Your task to perform on an android device: turn off wifi Image 0: 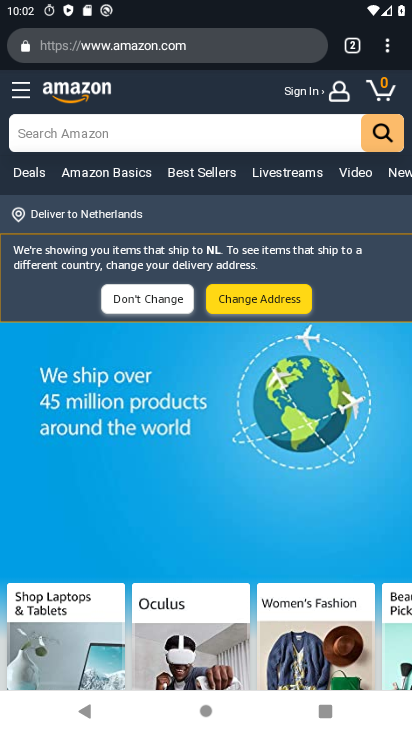
Step 0: press home button
Your task to perform on an android device: turn off wifi Image 1: 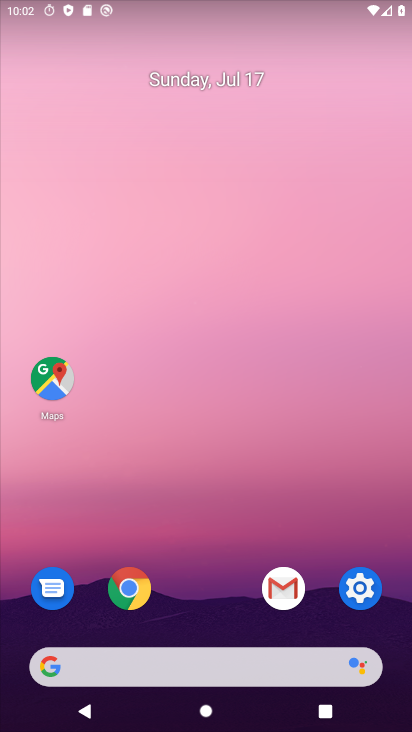
Step 1: click (363, 596)
Your task to perform on an android device: turn off wifi Image 2: 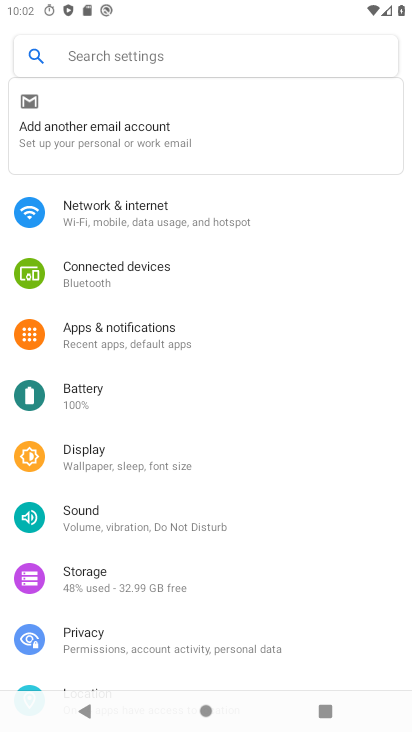
Step 2: click (103, 212)
Your task to perform on an android device: turn off wifi Image 3: 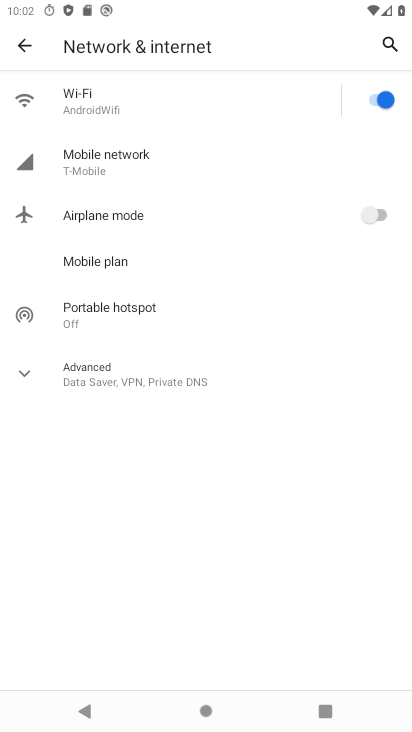
Step 3: click (112, 102)
Your task to perform on an android device: turn off wifi Image 4: 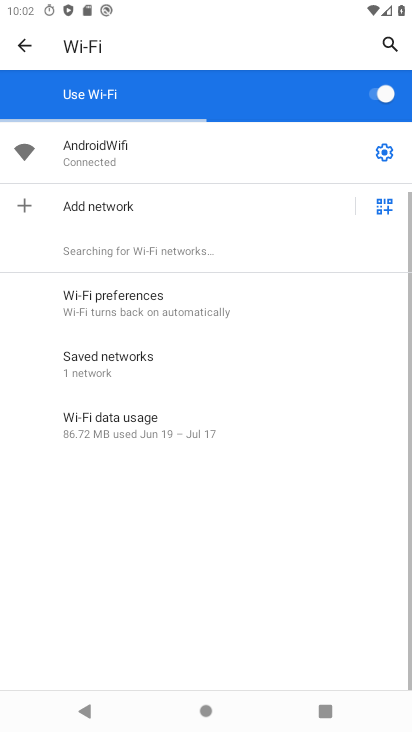
Step 4: click (369, 85)
Your task to perform on an android device: turn off wifi Image 5: 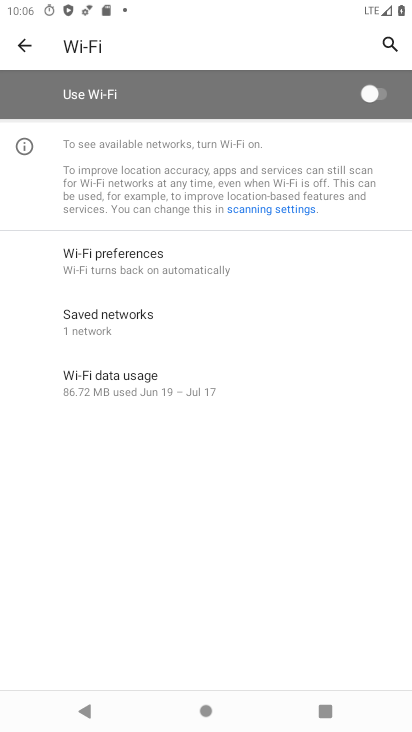
Step 5: task complete